Your task to perform on an android device: Open location settings Image 0: 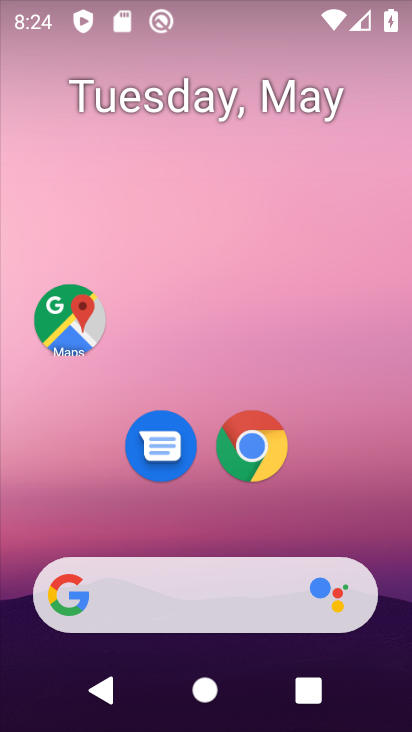
Step 0: drag from (356, 550) to (349, 19)
Your task to perform on an android device: Open location settings Image 1: 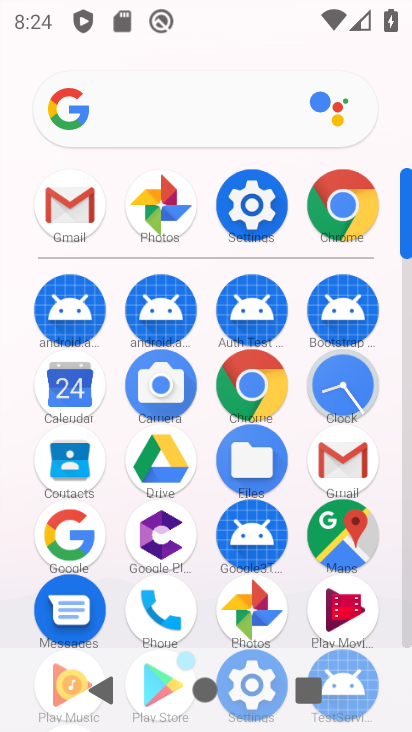
Step 1: click (250, 207)
Your task to perform on an android device: Open location settings Image 2: 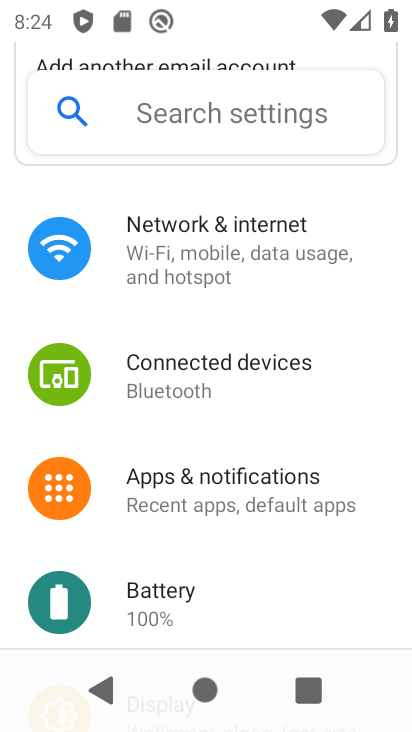
Step 2: drag from (365, 516) to (362, 268)
Your task to perform on an android device: Open location settings Image 3: 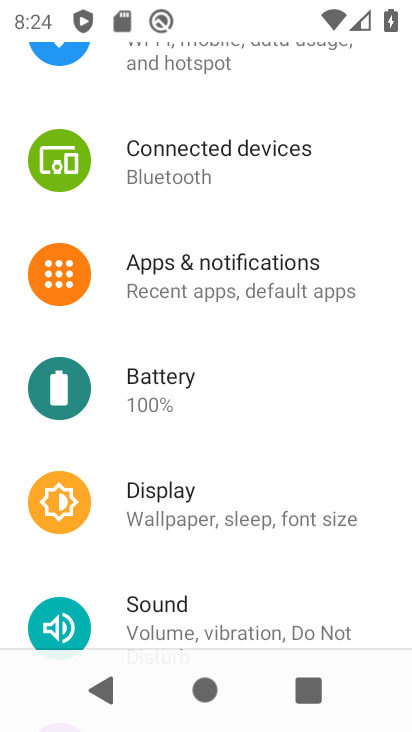
Step 3: drag from (334, 525) to (313, 174)
Your task to perform on an android device: Open location settings Image 4: 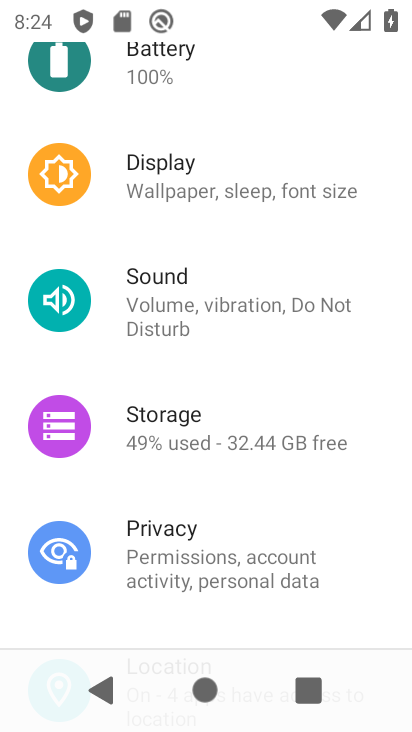
Step 4: drag from (278, 525) to (280, 175)
Your task to perform on an android device: Open location settings Image 5: 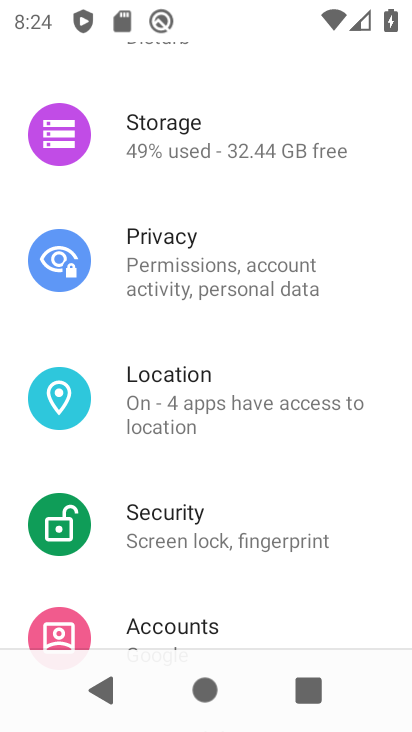
Step 5: click (198, 398)
Your task to perform on an android device: Open location settings Image 6: 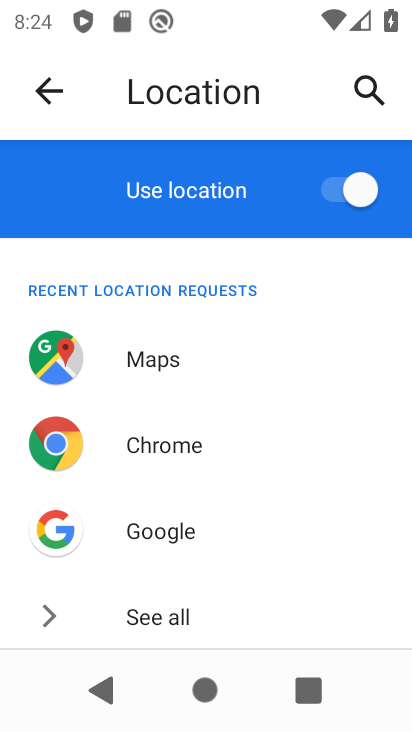
Step 6: task complete